Your task to perform on an android device: see sites visited before in the chrome app Image 0: 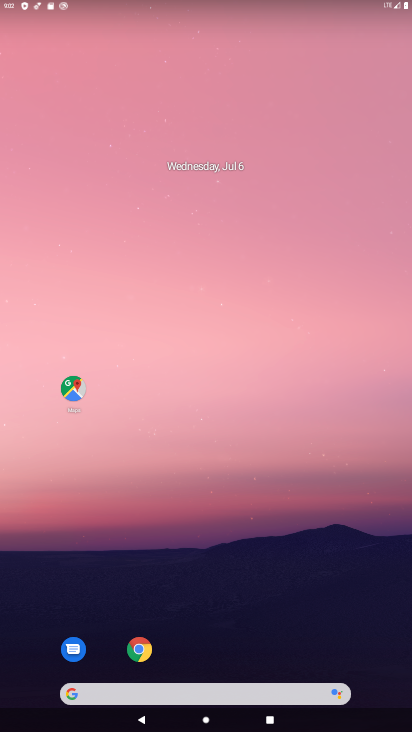
Step 0: drag from (225, 663) to (201, 33)
Your task to perform on an android device: see sites visited before in the chrome app Image 1: 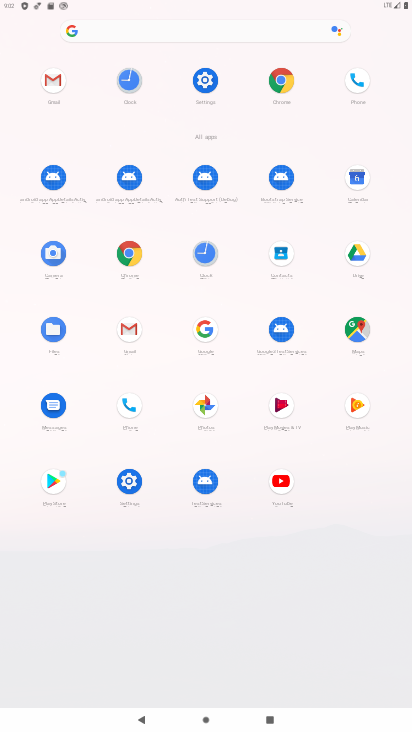
Step 1: click (125, 246)
Your task to perform on an android device: see sites visited before in the chrome app Image 2: 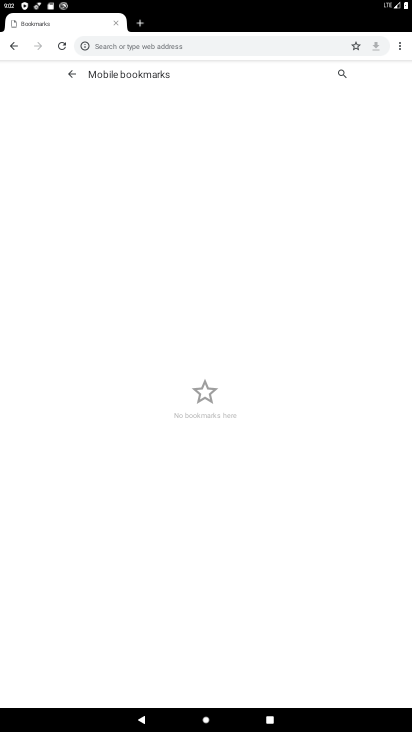
Step 2: click (398, 46)
Your task to perform on an android device: see sites visited before in the chrome app Image 3: 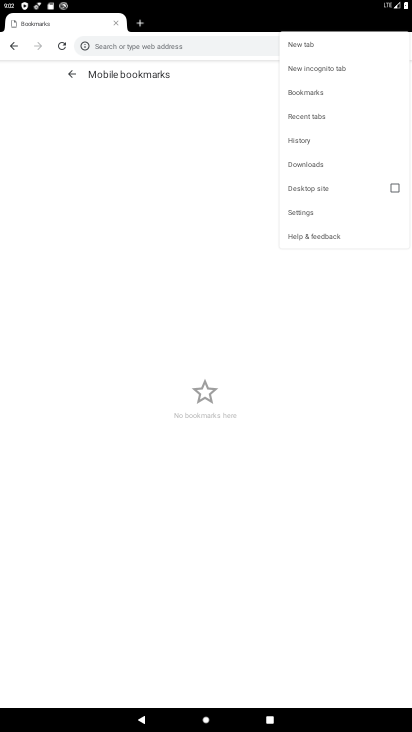
Step 3: click (294, 145)
Your task to perform on an android device: see sites visited before in the chrome app Image 4: 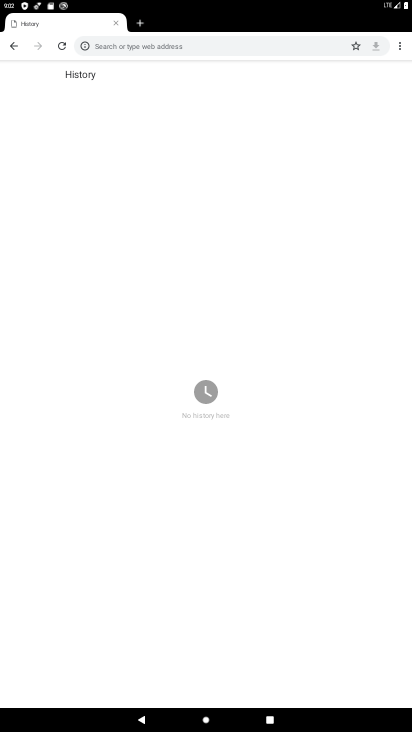
Step 4: task complete